Your task to perform on an android device: See recent photos Image 0: 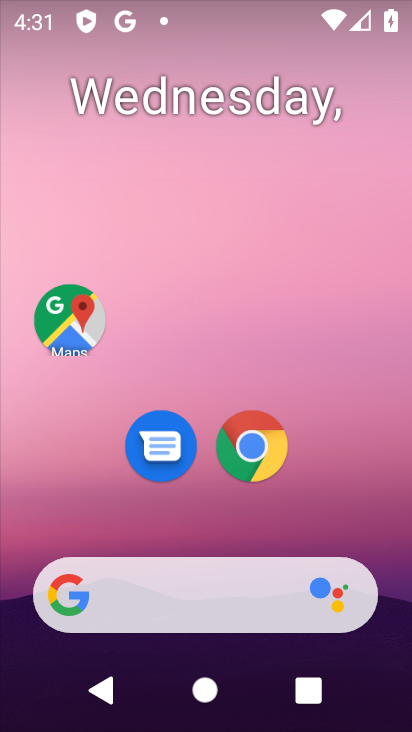
Step 0: drag from (135, 544) to (257, 56)
Your task to perform on an android device: See recent photos Image 1: 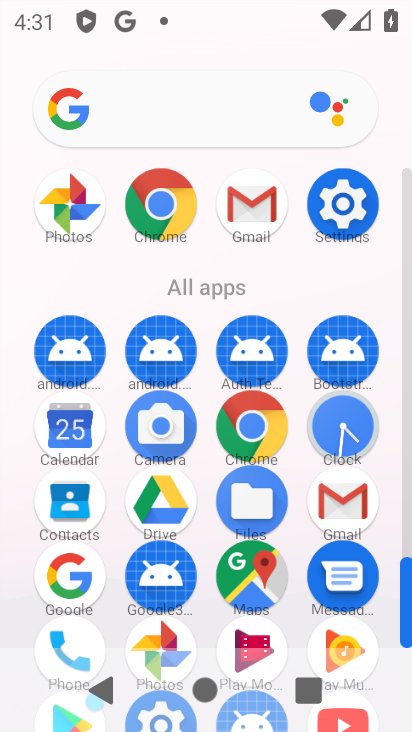
Step 1: drag from (179, 547) to (232, 352)
Your task to perform on an android device: See recent photos Image 2: 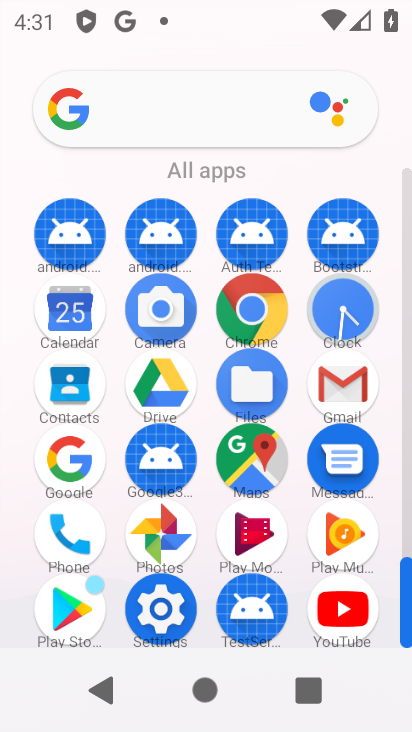
Step 2: click (162, 556)
Your task to perform on an android device: See recent photos Image 3: 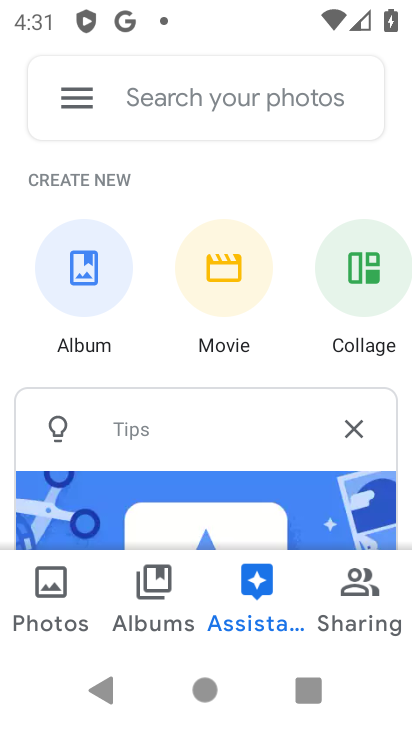
Step 3: click (42, 596)
Your task to perform on an android device: See recent photos Image 4: 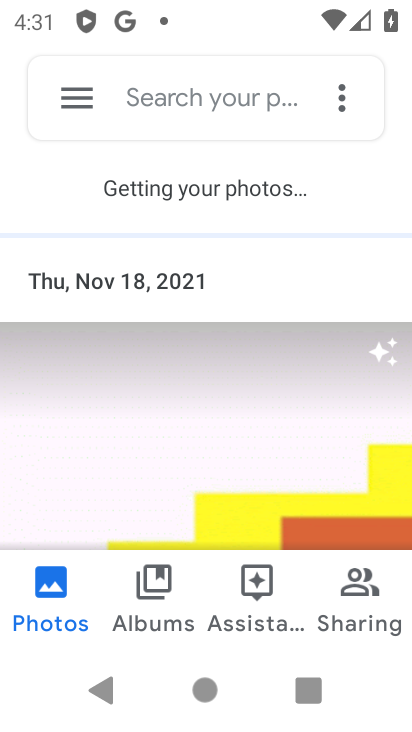
Step 4: task complete